Your task to perform on an android device: Set the phone to "Do not disturb". Image 0: 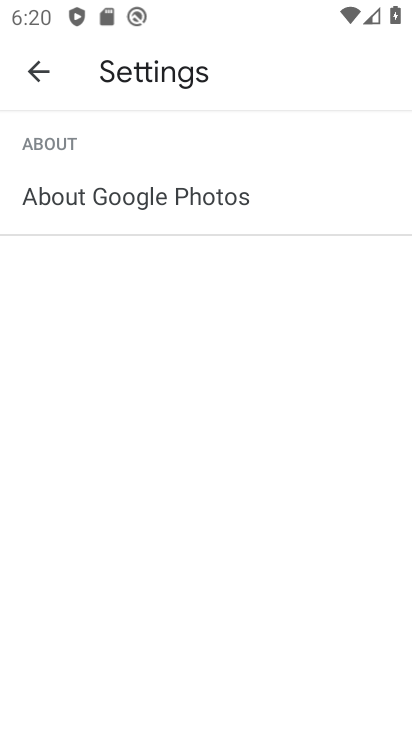
Step 0: press home button
Your task to perform on an android device: Set the phone to "Do not disturb". Image 1: 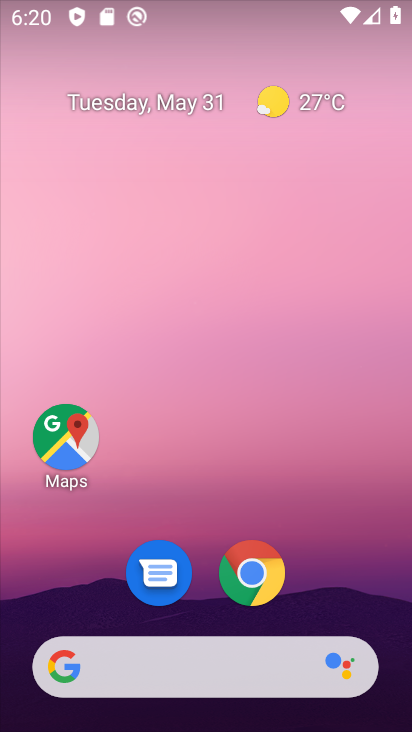
Step 1: drag from (266, 2) to (289, 457)
Your task to perform on an android device: Set the phone to "Do not disturb". Image 2: 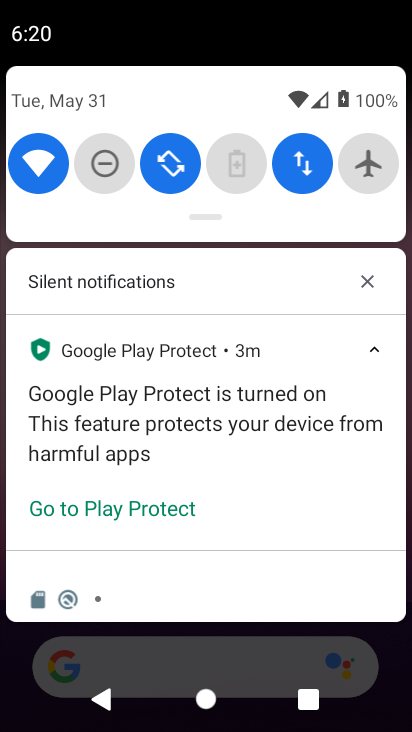
Step 2: click (115, 194)
Your task to perform on an android device: Set the phone to "Do not disturb". Image 3: 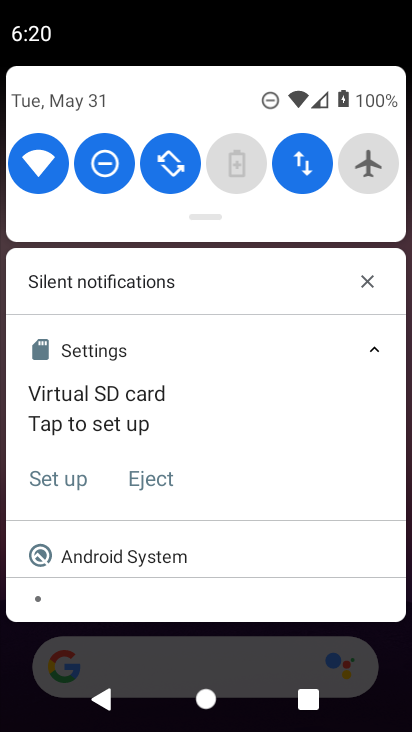
Step 3: task complete